Your task to perform on an android device: snooze an email in the gmail app Image 0: 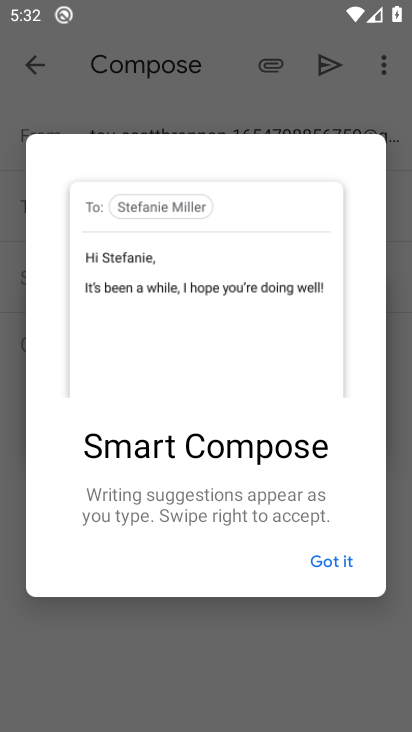
Step 0: click (325, 566)
Your task to perform on an android device: snooze an email in the gmail app Image 1: 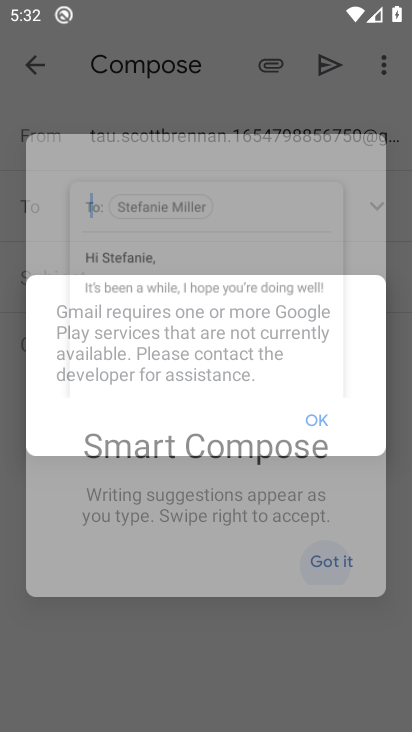
Step 1: click (327, 562)
Your task to perform on an android device: snooze an email in the gmail app Image 2: 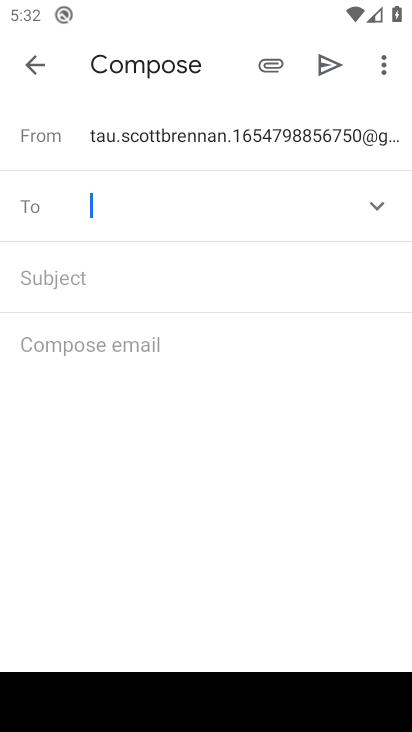
Step 2: click (10, 59)
Your task to perform on an android device: snooze an email in the gmail app Image 3: 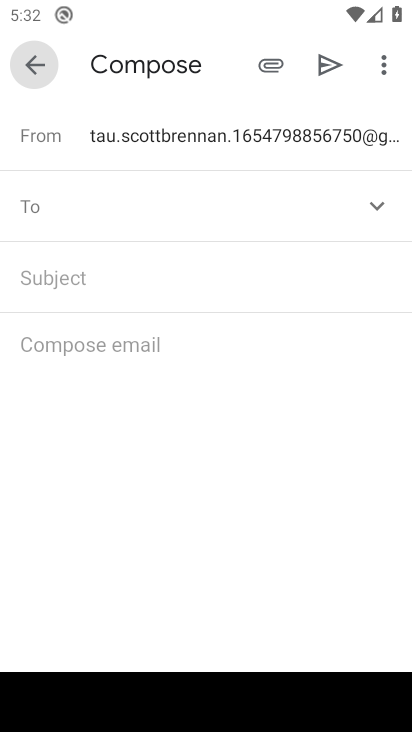
Step 3: click (18, 59)
Your task to perform on an android device: snooze an email in the gmail app Image 4: 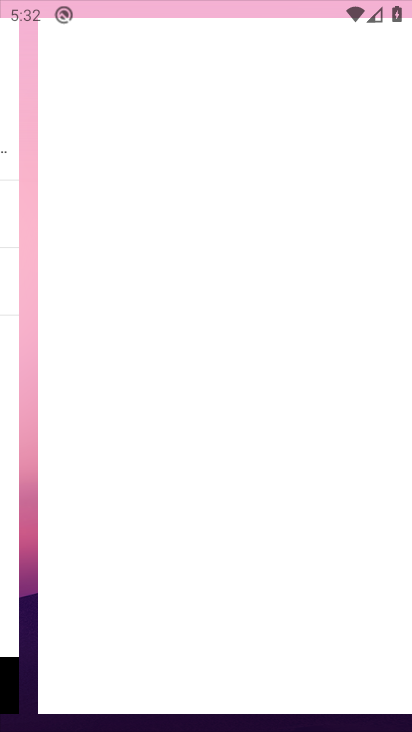
Step 4: click (19, 59)
Your task to perform on an android device: snooze an email in the gmail app Image 5: 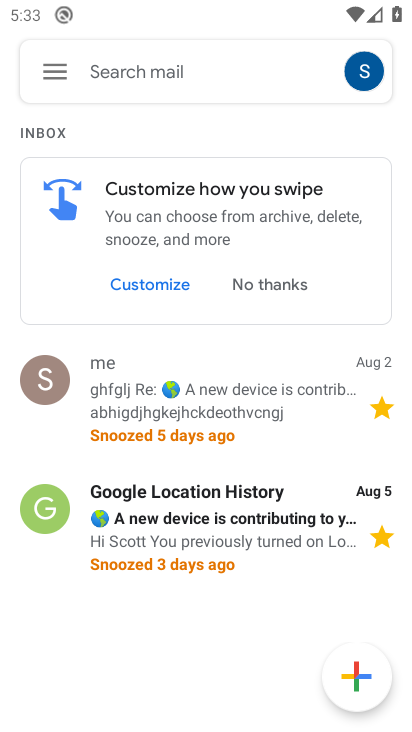
Step 5: click (179, 407)
Your task to perform on an android device: snooze an email in the gmail app Image 6: 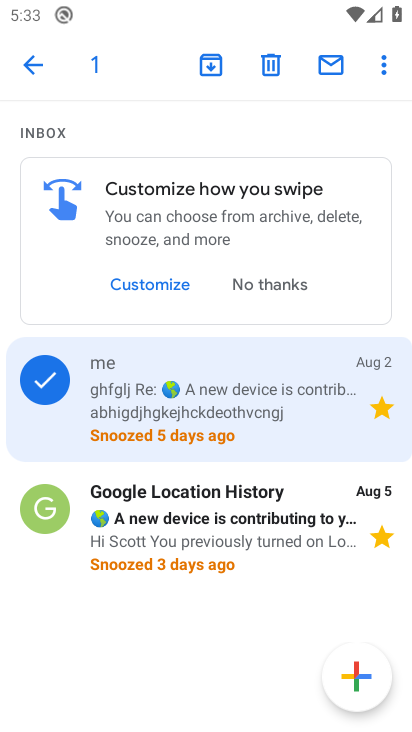
Step 6: click (179, 407)
Your task to perform on an android device: snooze an email in the gmail app Image 7: 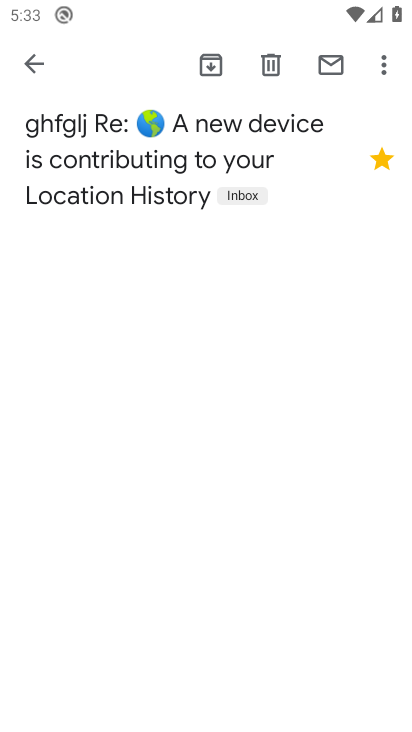
Step 7: click (257, 591)
Your task to perform on an android device: snooze an email in the gmail app Image 8: 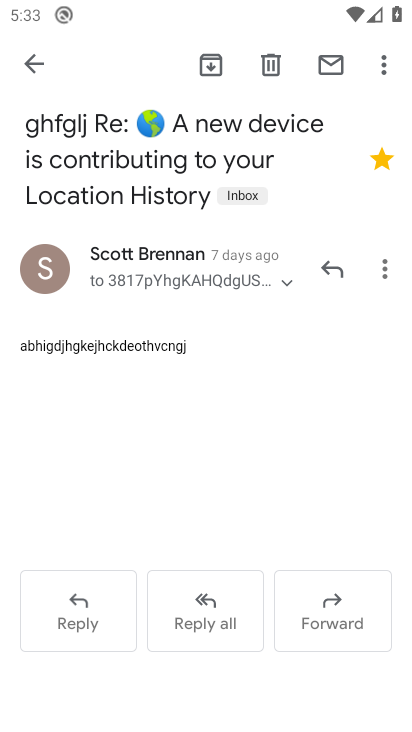
Step 8: task complete